Your task to perform on an android device: Is it going to rain tomorrow? Image 0: 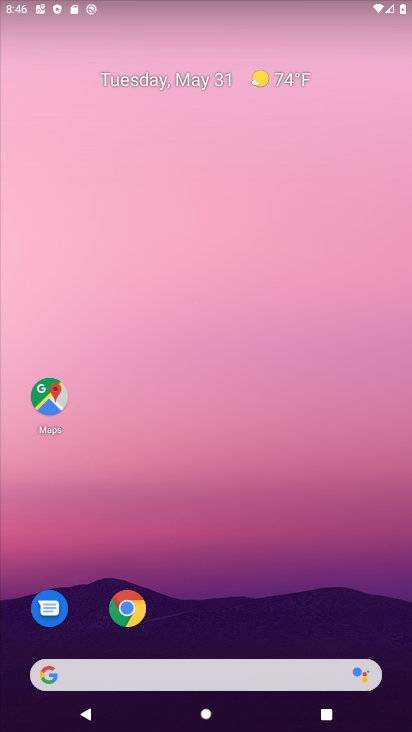
Step 0: click (234, 672)
Your task to perform on an android device: Is it going to rain tomorrow? Image 1: 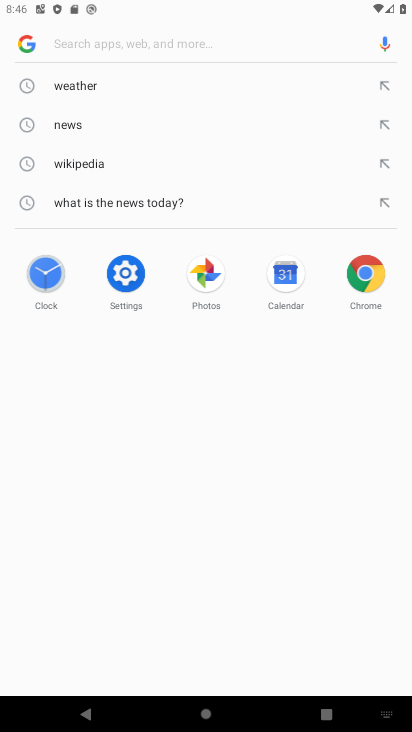
Step 1: click (98, 79)
Your task to perform on an android device: Is it going to rain tomorrow? Image 2: 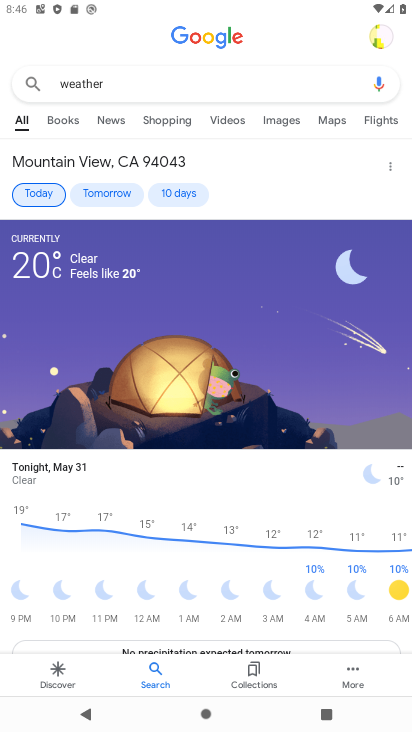
Step 2: click (96, 190)
Your task to perform on an android device: Is it going to rain tomorrow? Image 3: 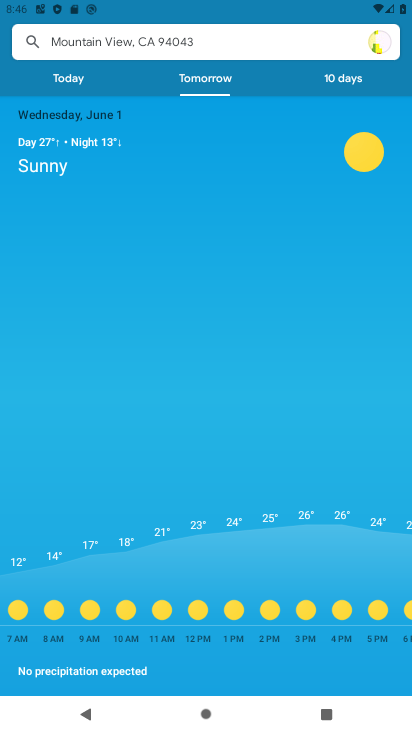
Step 3: task complete